Your task to perform on an android device: Show me popular games on the Play Store Image 0: 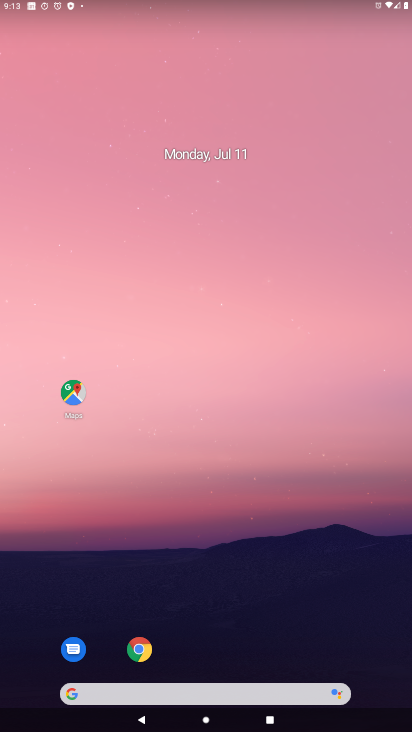
Step 0: drag from (216, 694) to (171, 139)
Your task to perform on an android device: Show me popular games on the Play Store Image 1: 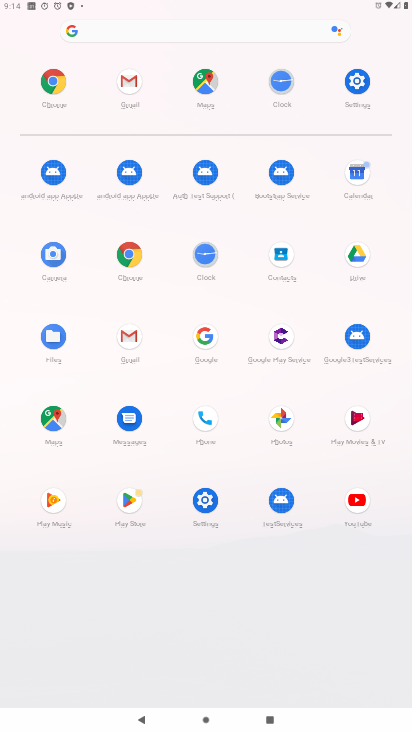
Step 1: click (131, 502)
Your task to perform on an android device: Show me popular games on the Play Store Image 2: 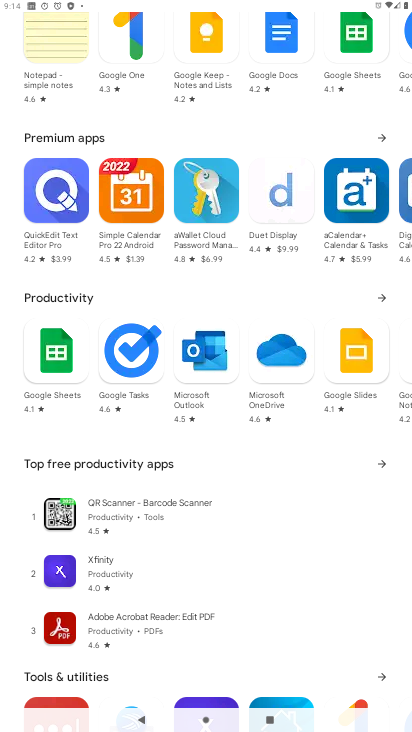
Step 2: drag from (275, 255) to (280, 552)
Your task to perform on an android device: Show me popular games on the Play Store Image 3: 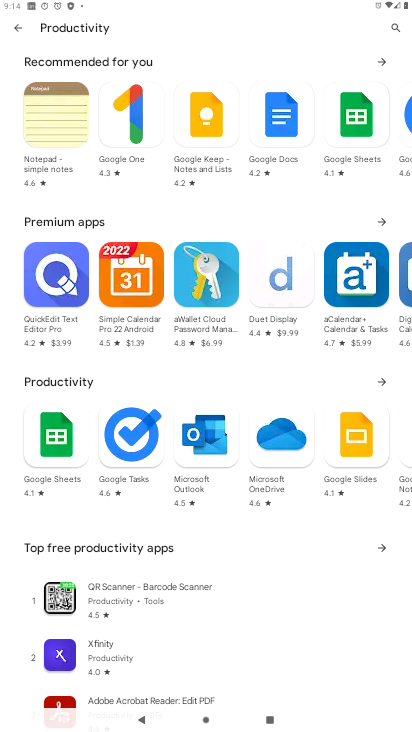
Step 3: press back button
Your task to perform on an android device: Show me popular games on the Play Store Image 4: 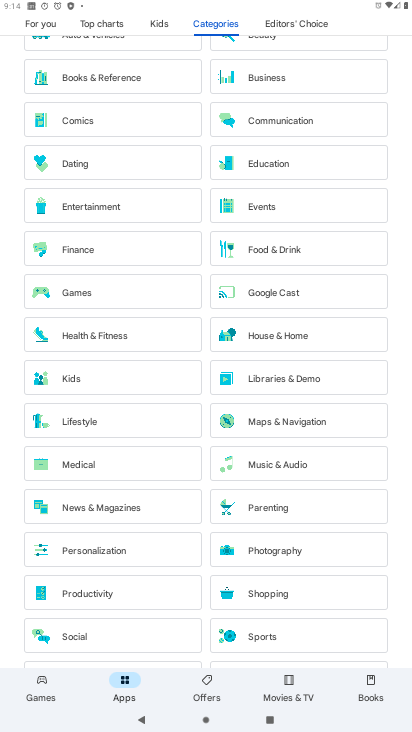
Step 4: press back button
Your task to perform on an android device: Show me popular games on the Play Store Image 5: 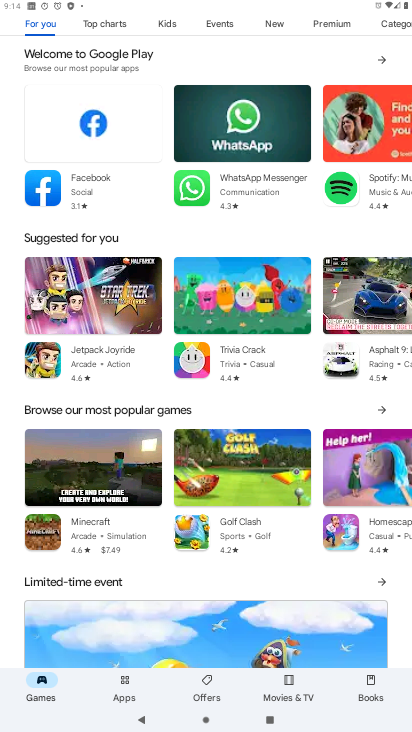
Step 5: drag from (284, 86) to (314, 474)
Your task to perform on an android device: Show me popular games on the Play Store Image 6: 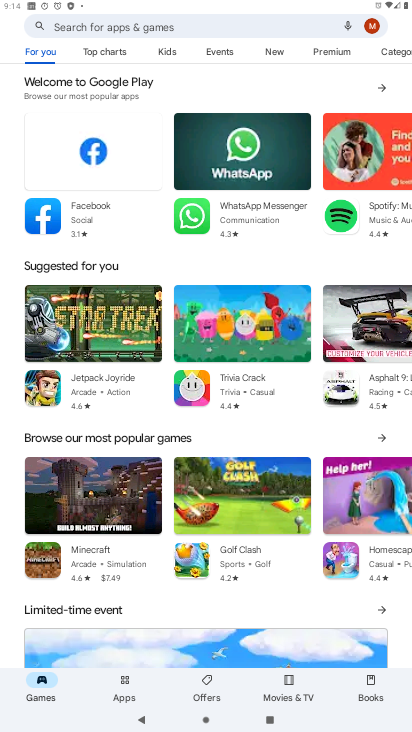
Step 6: click (208, 22)
Your task to perform on an android device: Show me popular games on the Play Store Image 7: 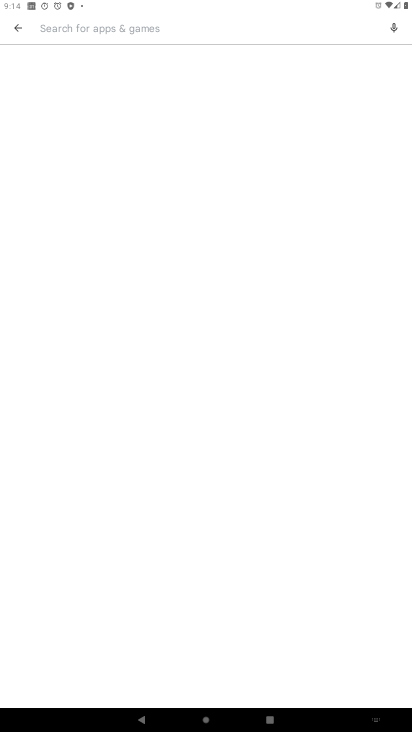
Step 7: type "popular games"
Your task to perform on an android device: Show me popular games on the Play Store Image 8: 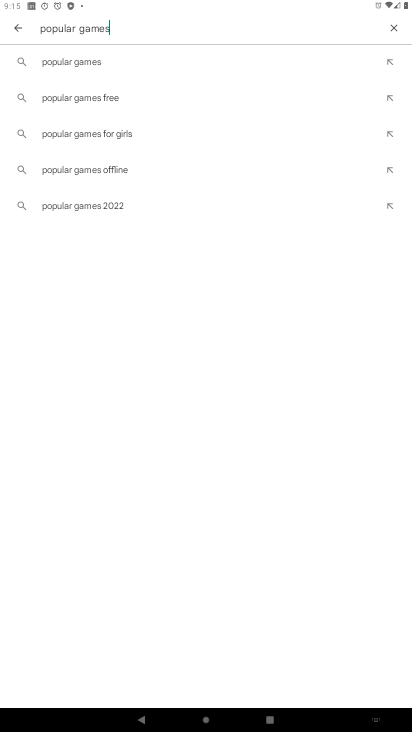
Step 8: click (100, 63)
Your task to perform on an android device: Show me popular games on the Play Store Image 9: 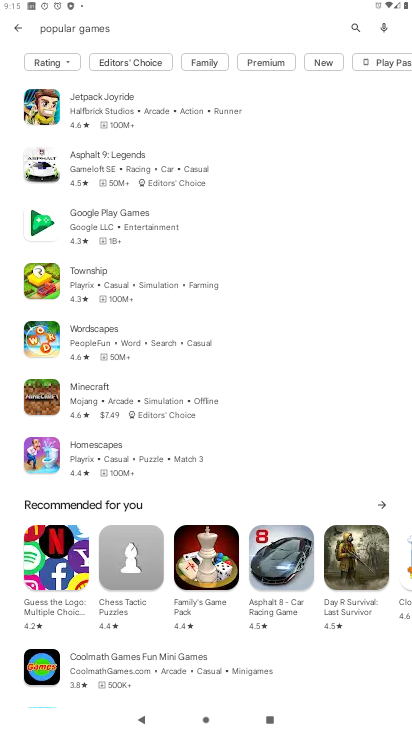
Step 9: task complete